Your task to perform on an android device: Set the phone to "Do not disturb". Image 0: 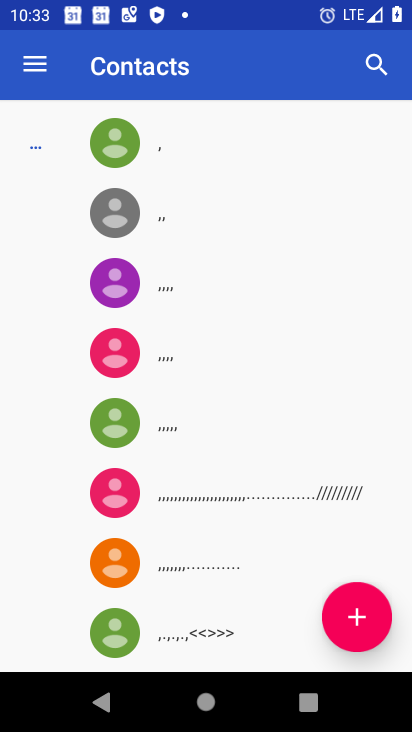
Step 0: press home button
Your task to perform on an android device: Set the phone to "Do not disturb". Image 1: 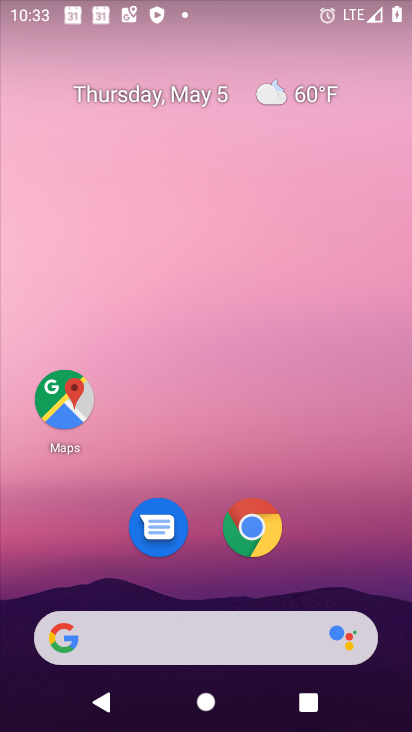
Step 1: drag from (266, 705) to (238, 101)
Your task to perform on an android device: Set the phone to "Do not disturb". Image 2: 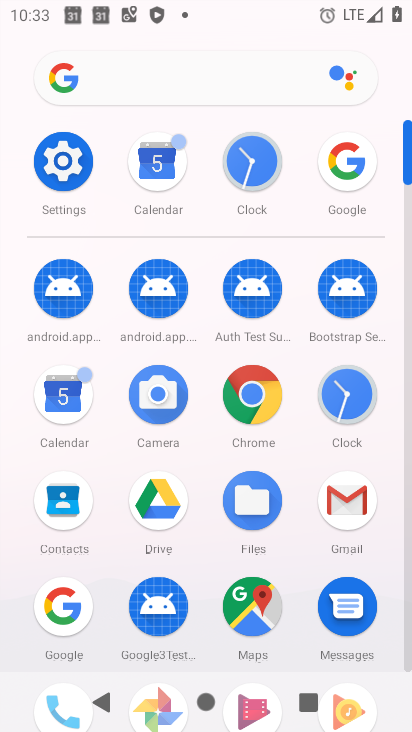
Step 2: click (81, 155)
Your task to perform on an android device: Set the phone to "Do not disturb". Image 3: 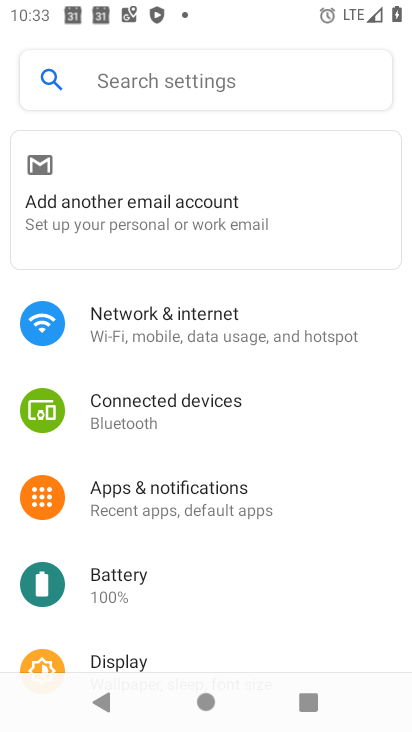
Step 3: drag from (308, 604) to (309, 142)
Your task to perform on an android device: Set the phone to "Do not disturb". Image 4: 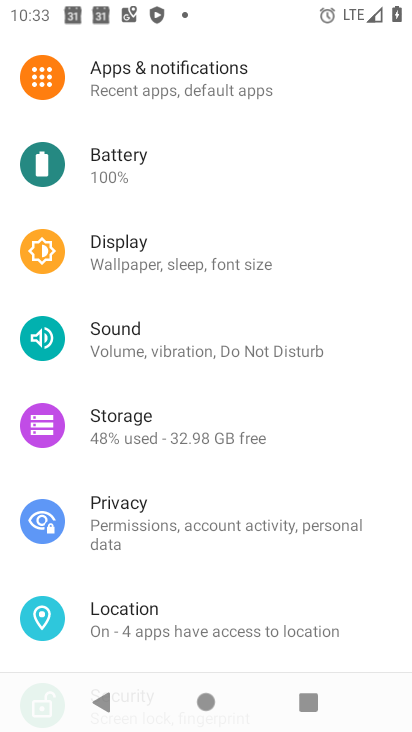
Step 4: click (275, 355)
Your task to perform on an android device: Set the phone to "Do not disturb". Image 5: 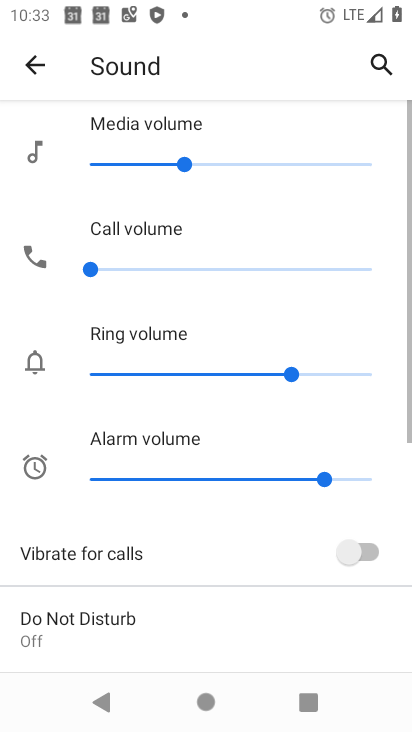
Step 5: drag from (226, 625) to (179, 98)
Your task to perform on an android device: Set the phone to "Do not disturb". Image 6: 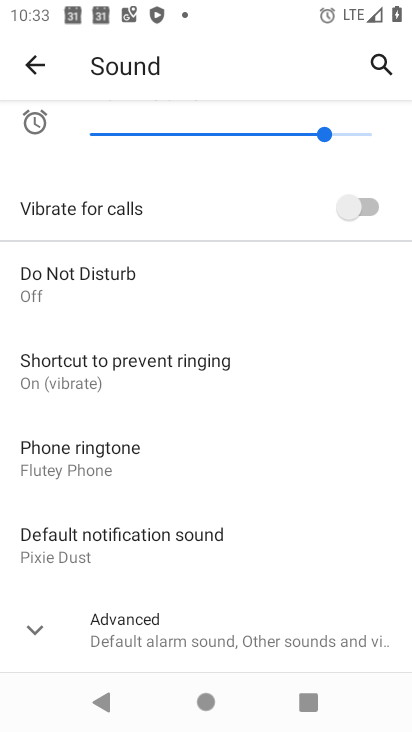
Step 6: click (84, 290)
Your task to perform on an android device: Set the phone to "Do not disturb". Image 7: 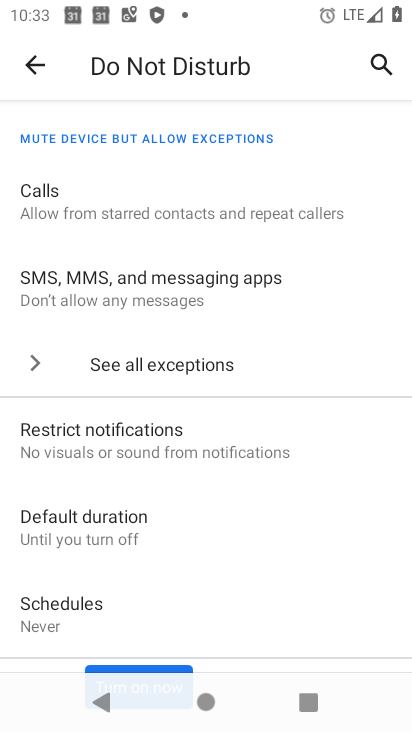
Step 7: click (44, 56)
Your task to perform on an android device: Set the phone to "Do not disturb". Image 8: 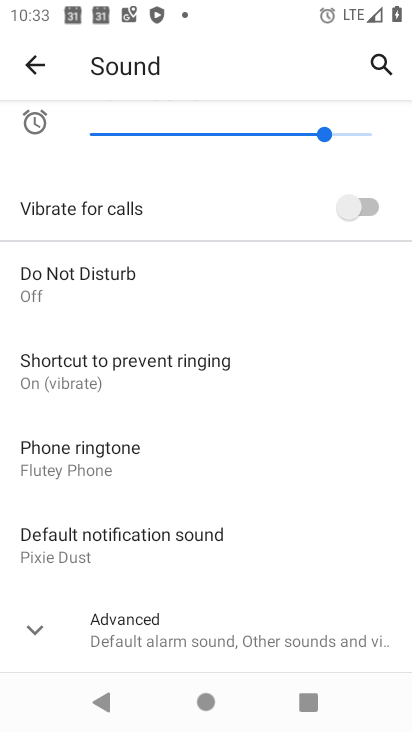
Step 8: click (140, 271)
Your task to perform on an android device: Set the phone to "Do not disturb". Image 9: 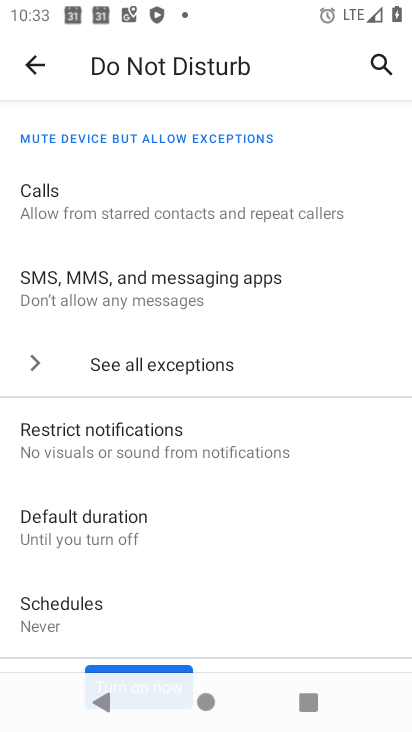
Step 9: drag from (297, 606) to (288, 147)
Your task to perform on an android device: Set the phone to "Do not disturb". Image 10: 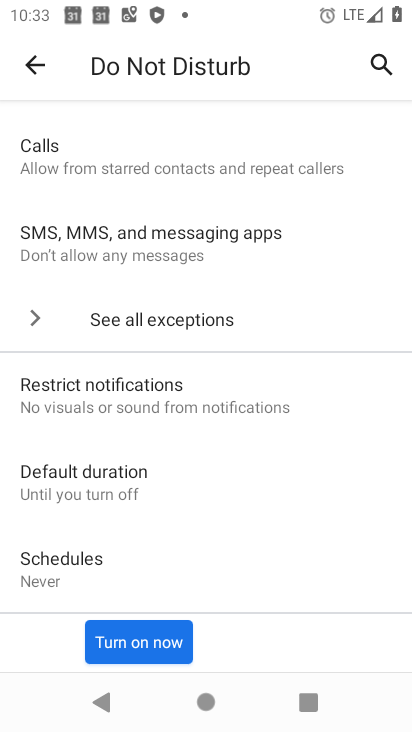
Step 10: click (130, 635)
Your task to perform on an android device: Set the phone to "Do not disturb". Image 11: 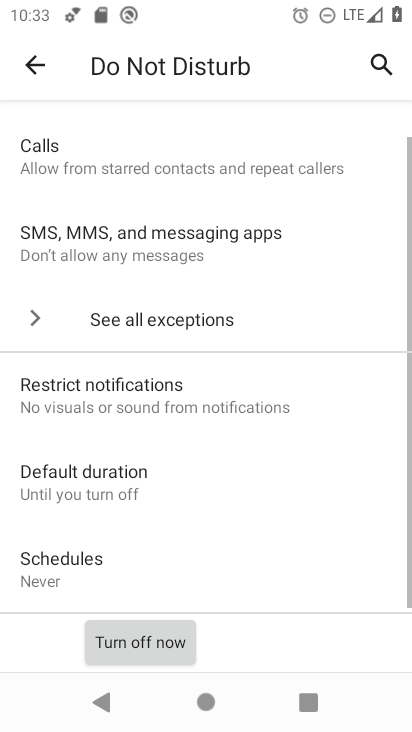
Step 11: task complete